Your task to perform on an android device: Open internet settings Image 0: 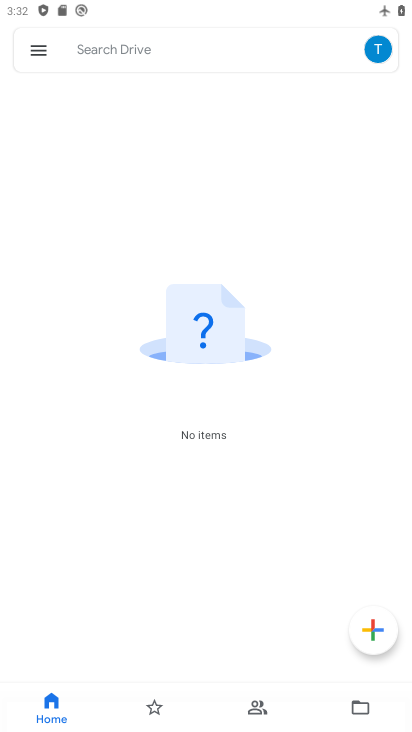
Step 0: press home button
Your task to perform on an android device: Open internet settings Image 1: 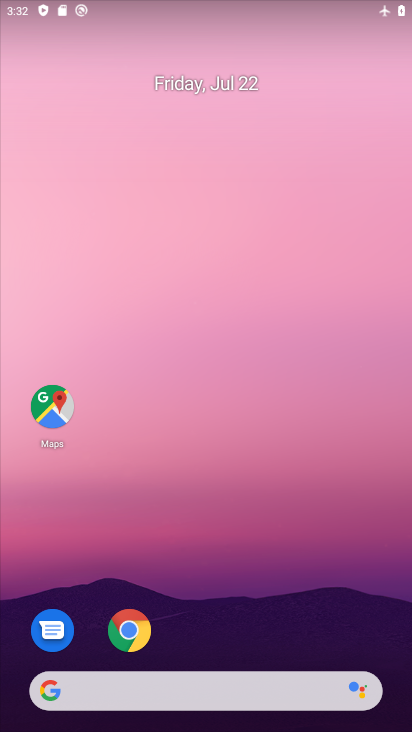
Step 1: drag from (197, 619) to (232, 82)
Your task to perform on an android device: Open internet settings Image 2: 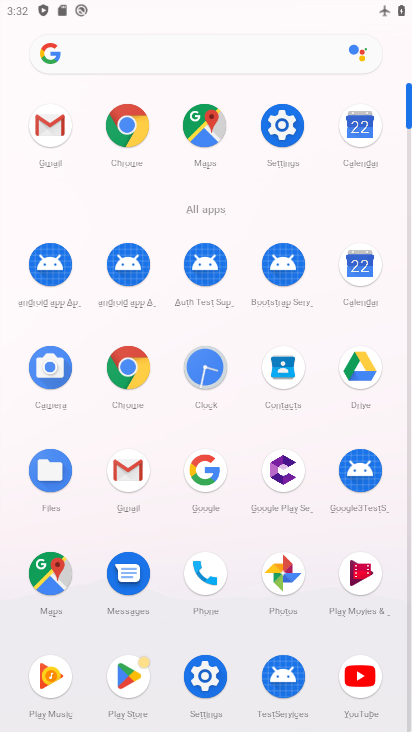
Step 2: click (203, 654)
Your task to perform on an android device: Open internet settings Image 3: 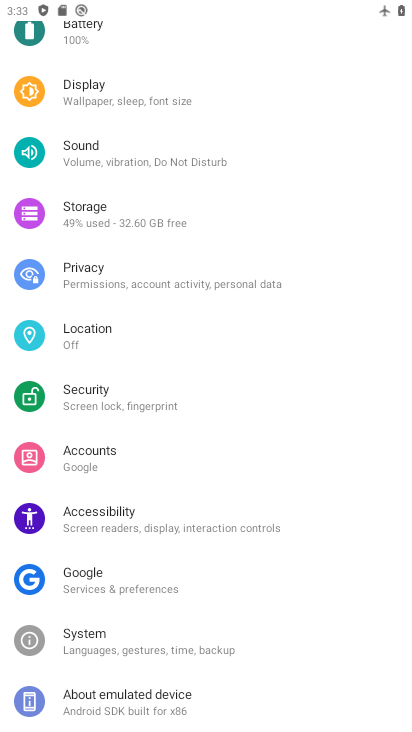
Step 3: drag from (254, 220) to (263, 530)
Your task to perform on an android device: Open internet settings Image 4: 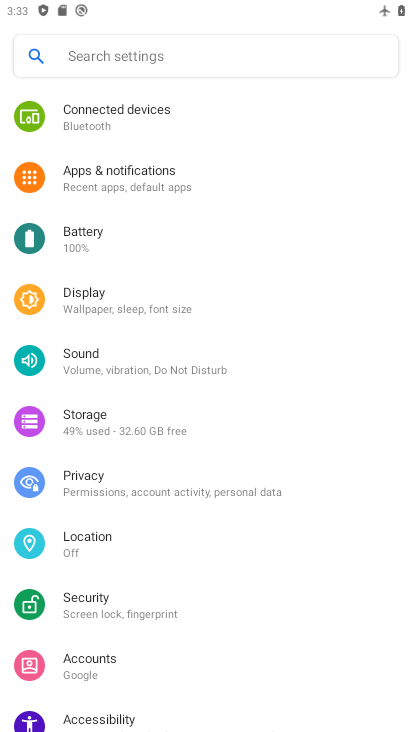
Step 4: drag from (168, 199) to (192, 581)
Your task to perform on an android device: Open internet settings Image 5: 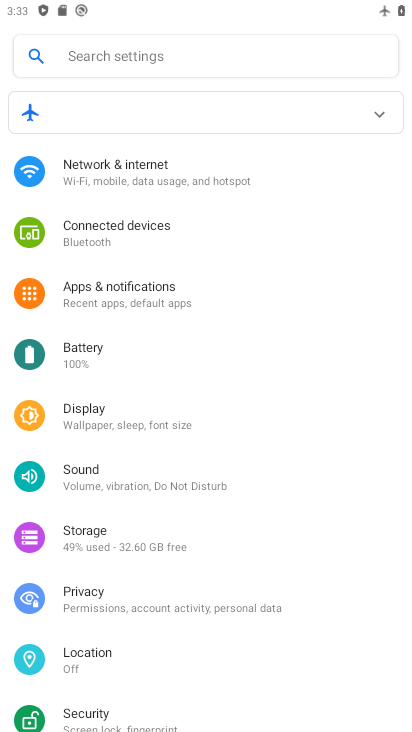
Step 5: click (141, 168)
Your task to perform on an android device: Open internet settings Image 6: 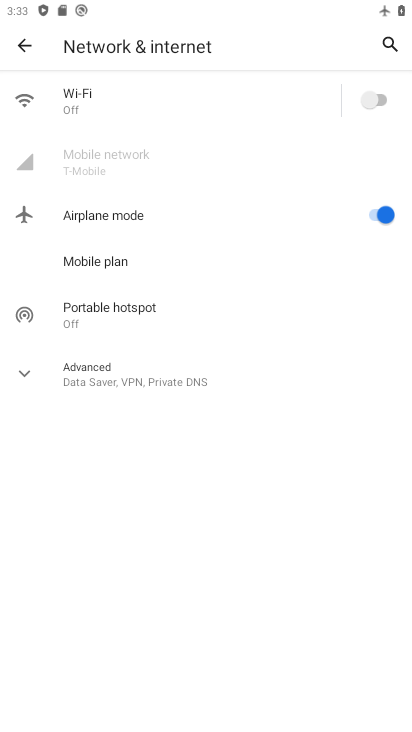
Step 6: task complete